Your task to perform on an android device: Is it going to rain today? Image 0: 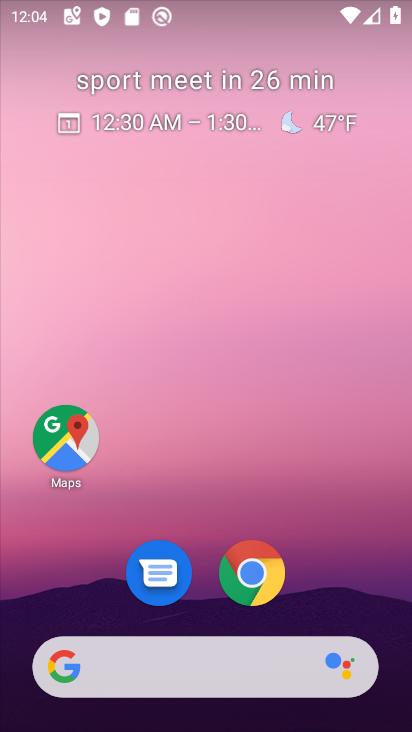
Step 0: click (213, 155)
Your task to perform on an android device: Is it going to rain today? Image 1: 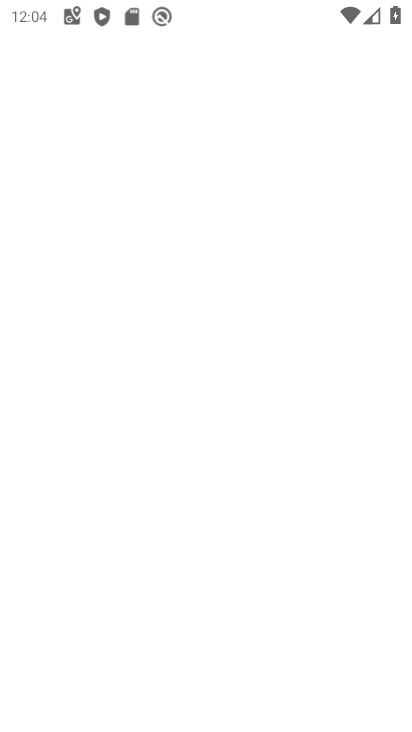
Step 1: press home button
Your task to perform on an android device: Is it going to rain today? Image 2: 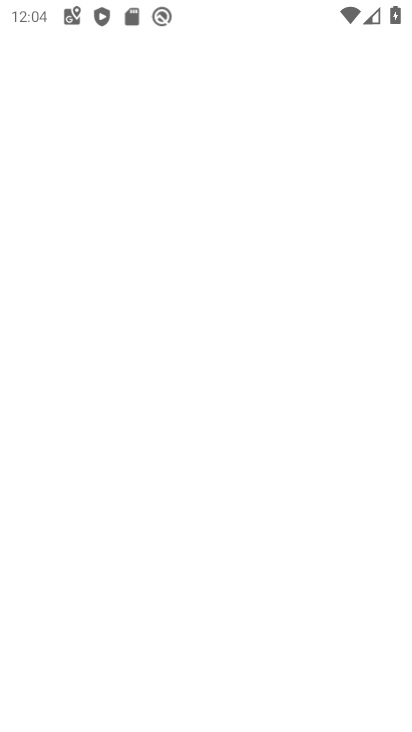
Step 2: press home button
Your task to perform on an android device: Is it going to rain today? Image 3: 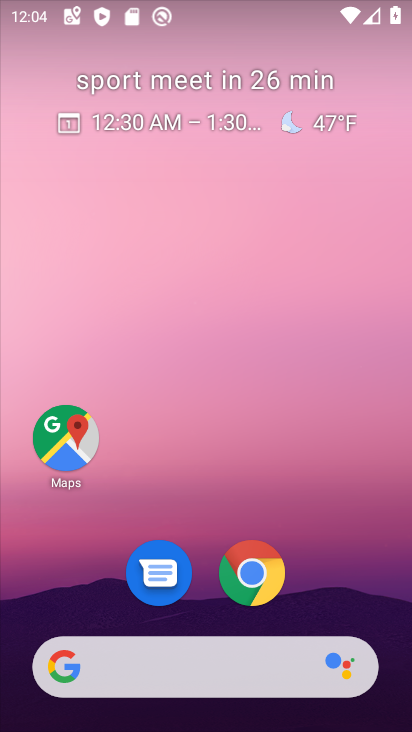
Step 3: drag from (198, 630) to (245, 302)
Your task to perform on an android device: Is it going to rain today? Image 4: 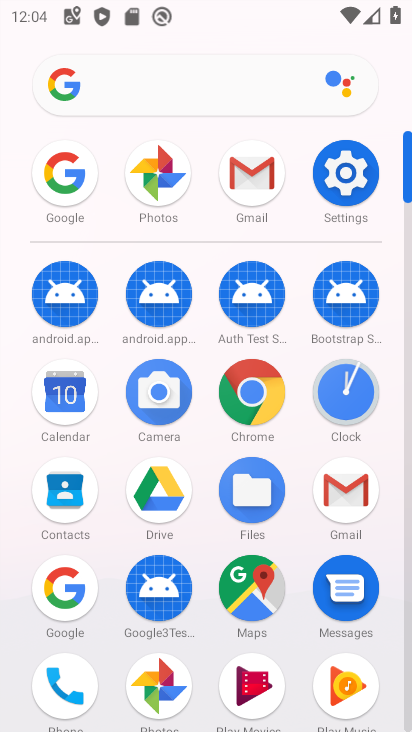
Step 4: click (226, 80)
Your task to perform on an android device: Is it going to rain today? Image 5: 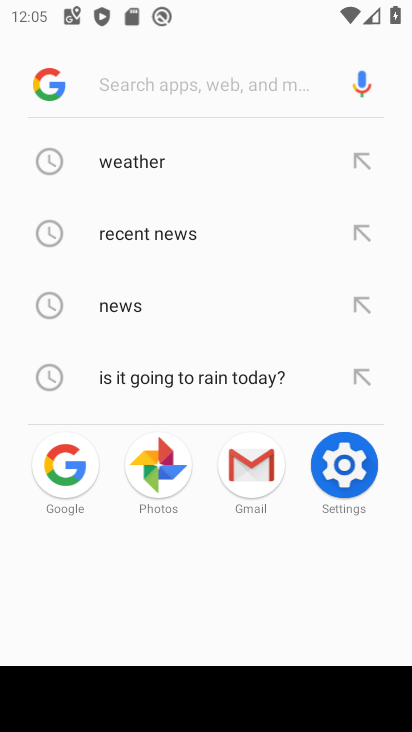
Step 5: type "rain today"
Your task to perform on an android device: Is it going to rain today? Image 6: 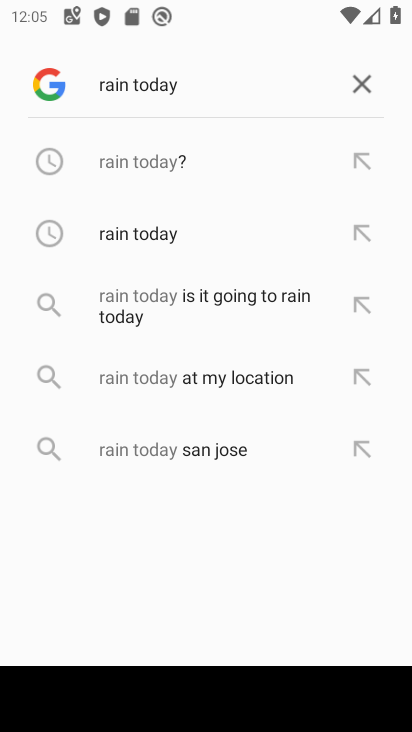
Step 6: click (174, 150)
Your task to perform on an android device: Is it going to rain today? Image 7: 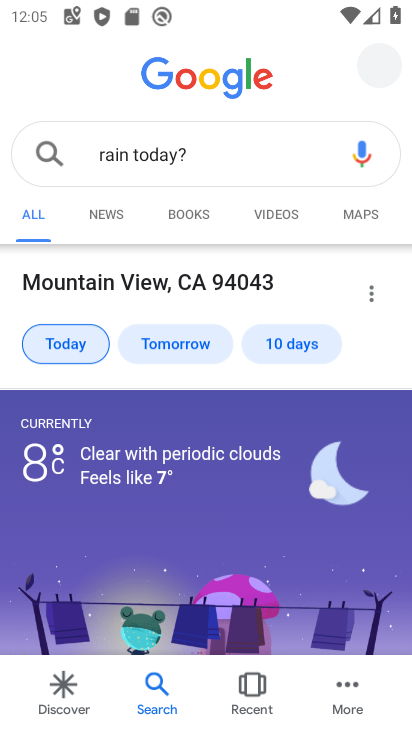
Step 7: task complete